Your task to perform on an android device: find photos in the google photos app Image 0: 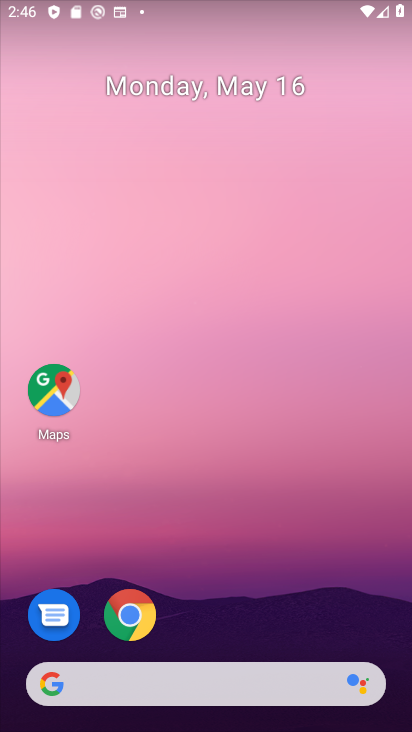
Step 0: drag from (291, 558) to (213, 7)
Your task to perform on an android device: find photos in the google photos app Image 1: 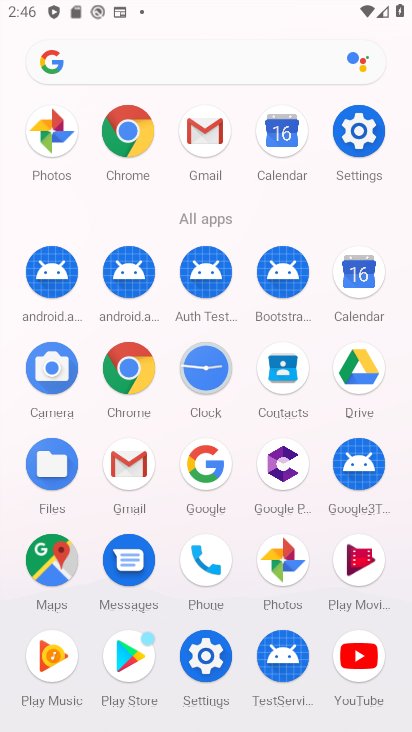
Step 1: click (279, 561)
Your task to perform on an android device: find photos in the google photos app Image 2: 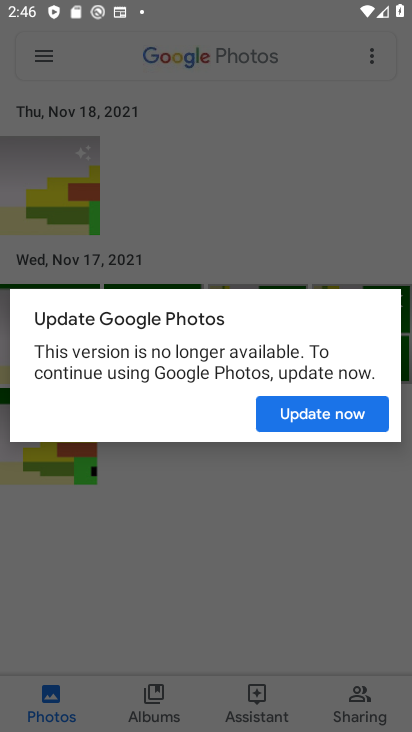
Step 2: click (291, 415)
Your task to perform on an android device: find photos in the google photos app Image 3: 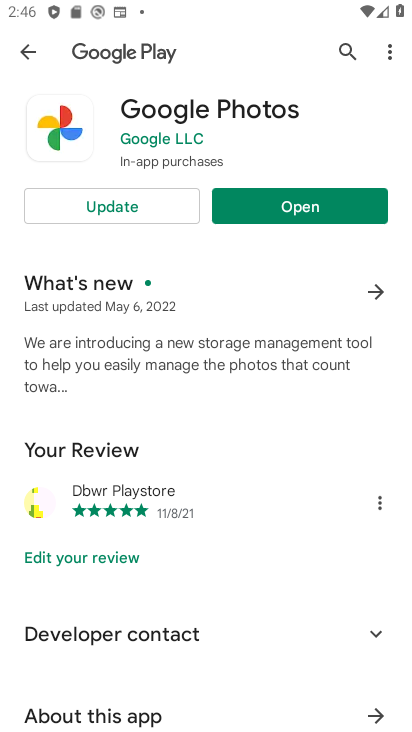
Step 3: click (298, 210)
Your task to perform on an android device: find photos in the google photos app Image 4: 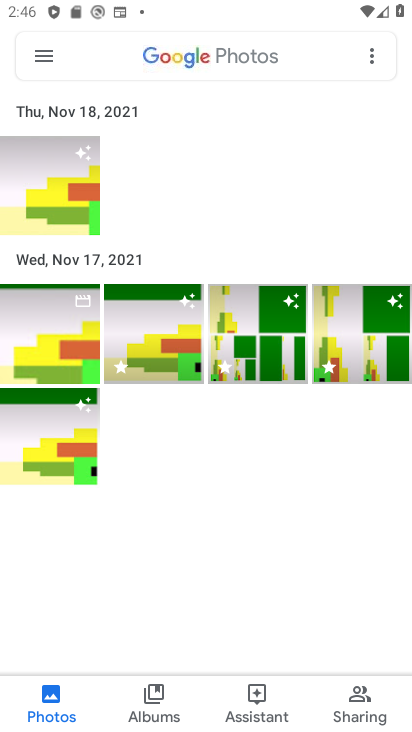
Step 4: click (48, 700)
Your task to perform on an android device: find photos in the google photos app Image 5: 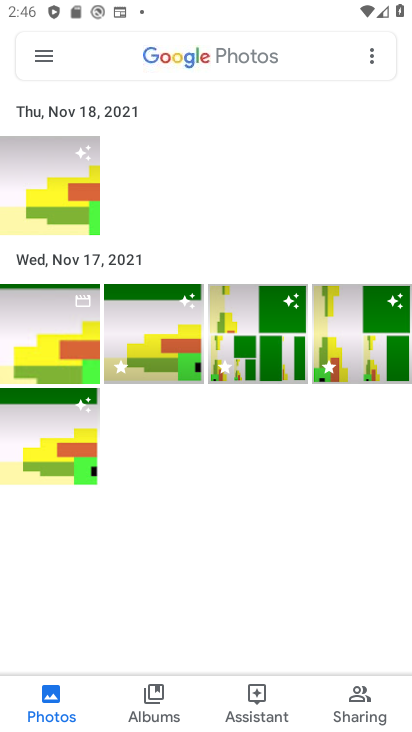
Step 5: task complete